Your task to perform on an android device: change notifications settings Image 0: 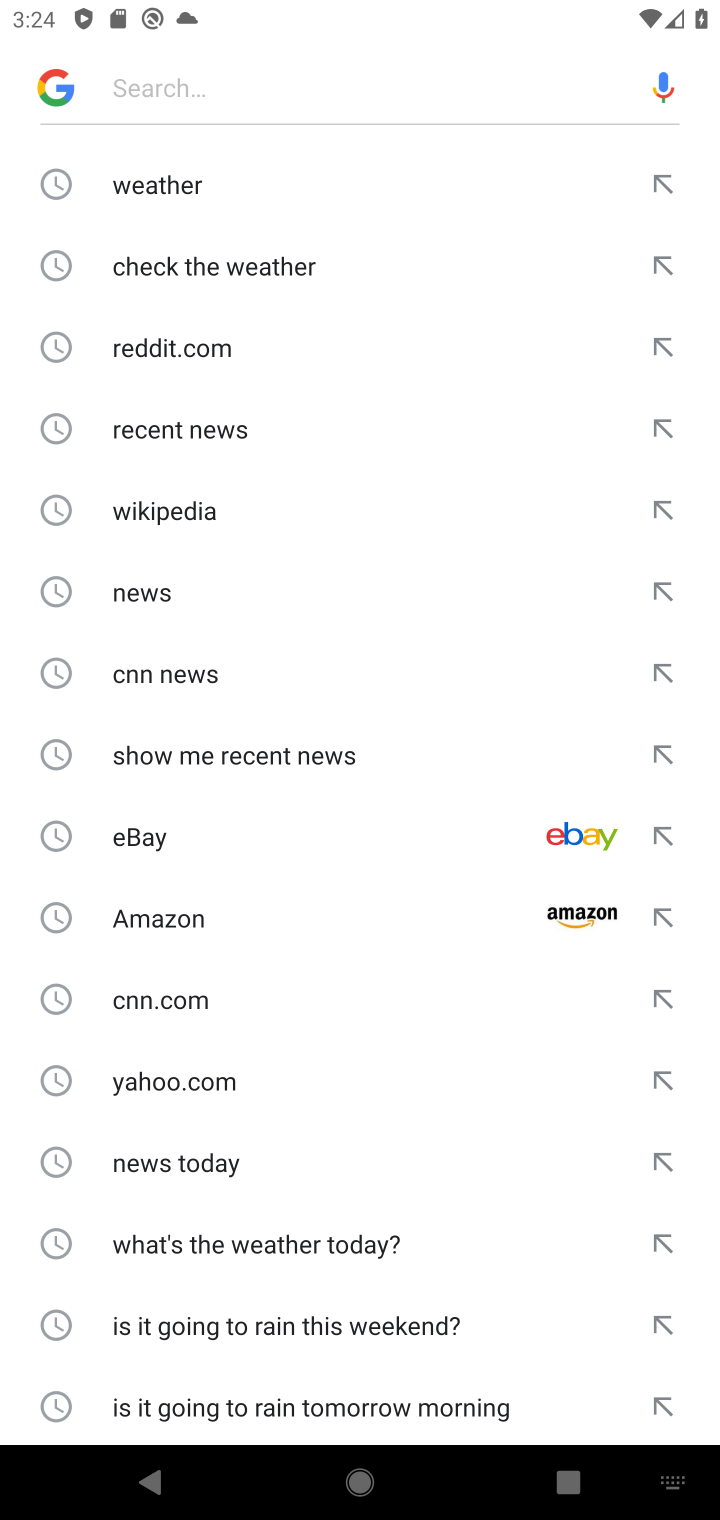
Step 0: press home button
Your task to perform on an android device: change notifications settings Image 1: 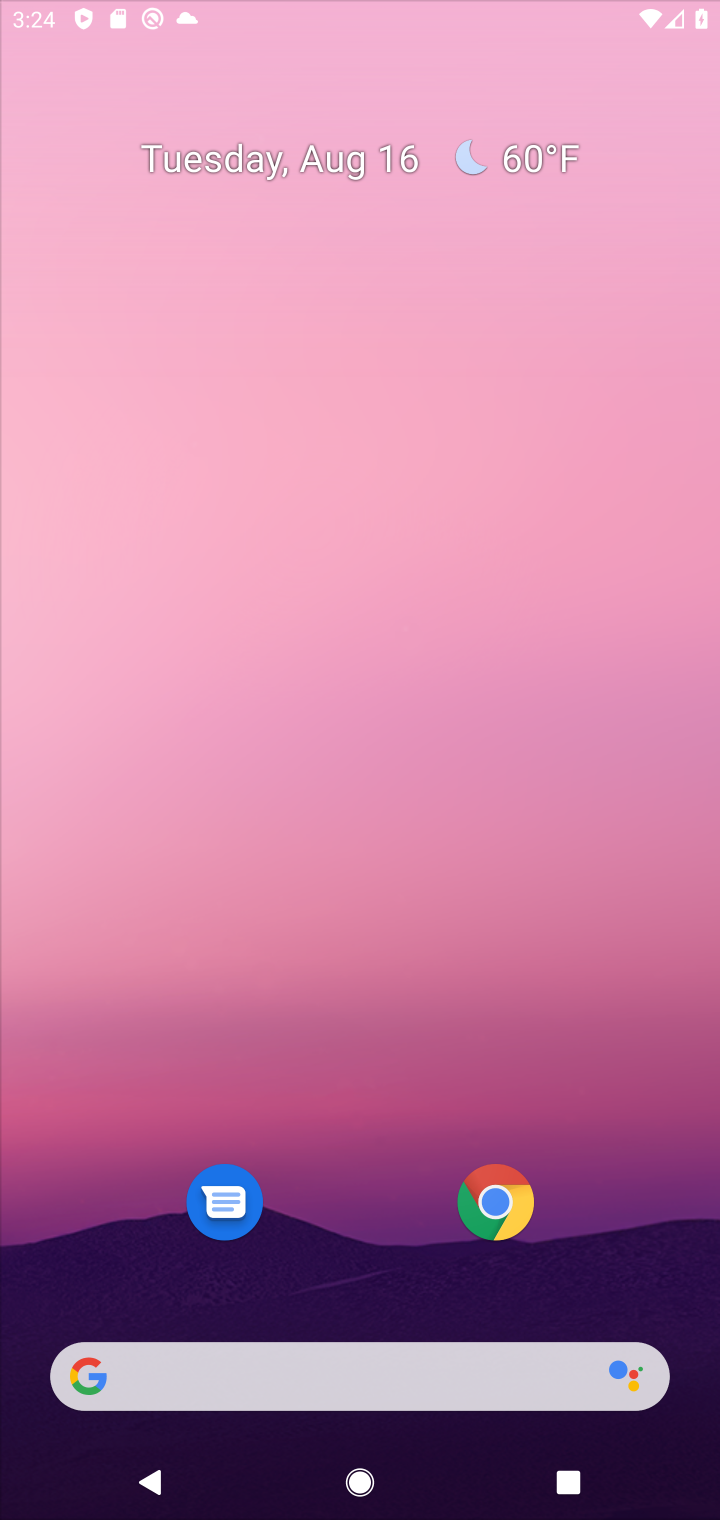
Step 1: press home button
Your task to perform on an android device: change notifications settings Image 2: 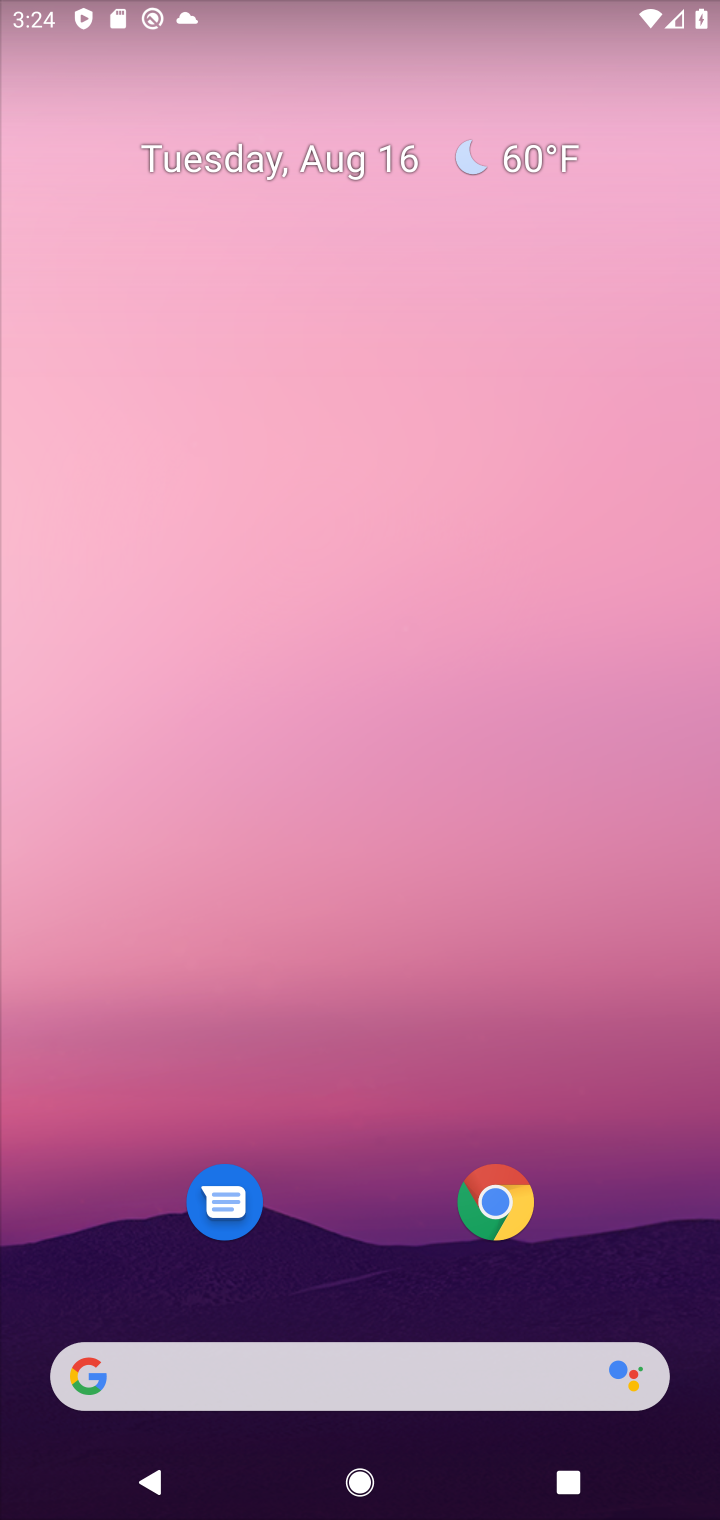
Step 2: drag from (354, 719) to (346, 296)
Your task to perform on an android device: change notifications settings Image 3: 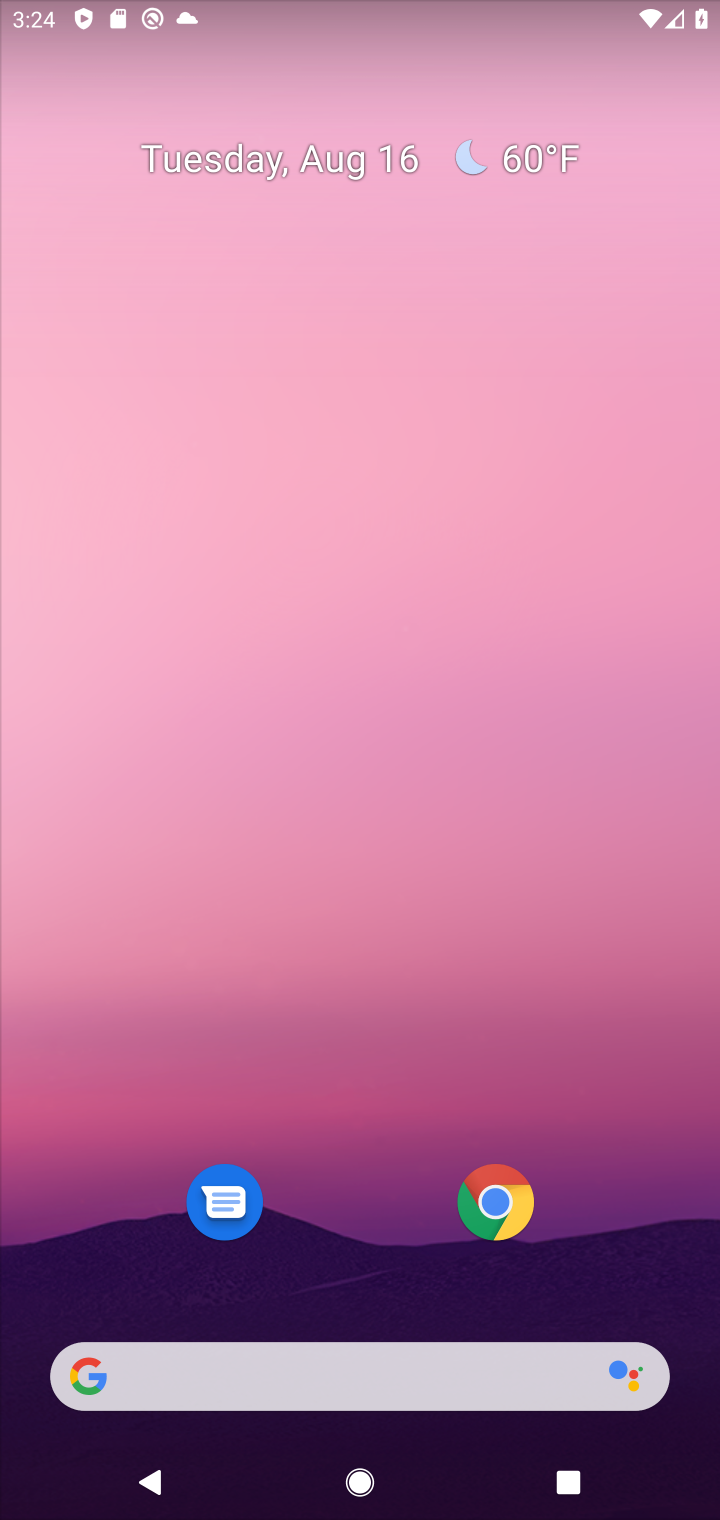
Step 3: drag from (339, 922) to (311, 132)
Your task to perform on an android device: change notifications settings Image 4: 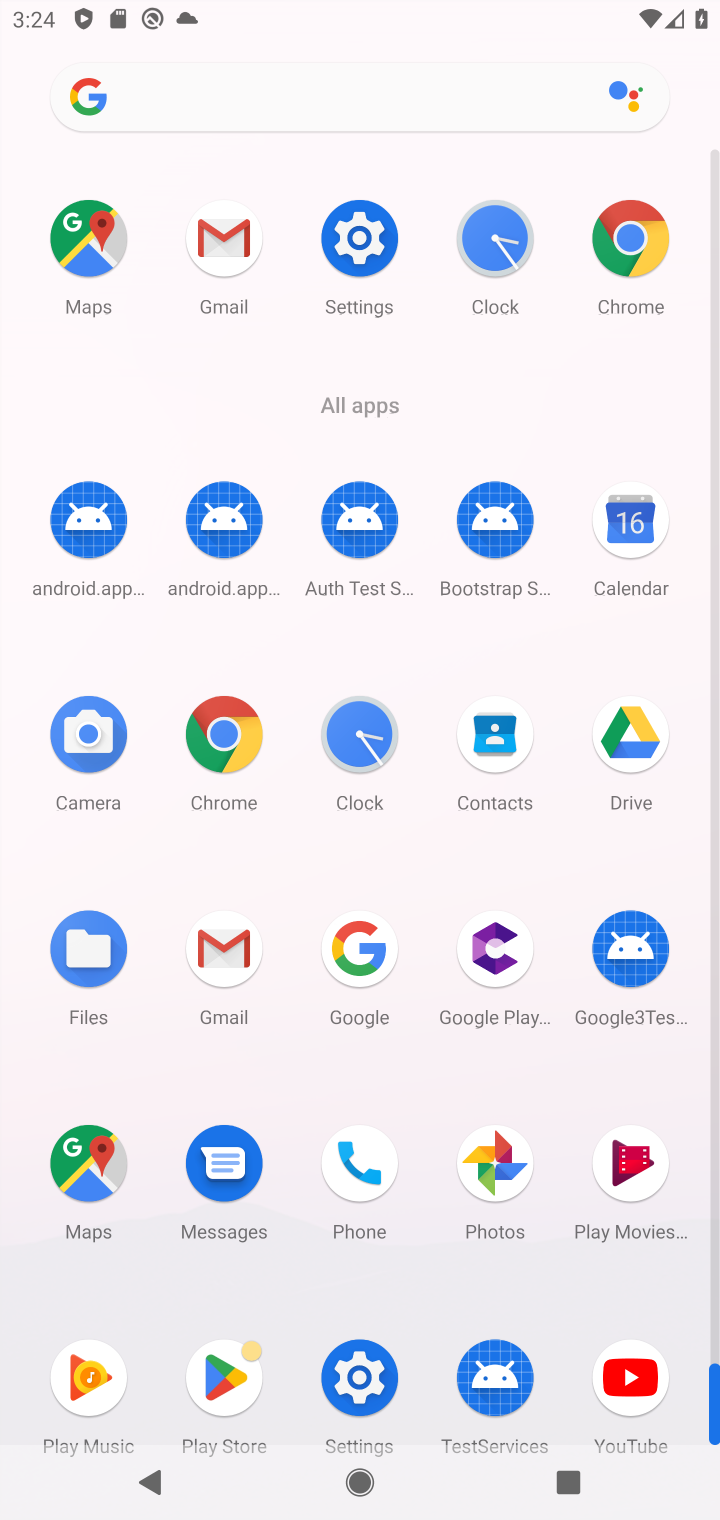
Step 4: click (378, 1384)
Your task to perform on an android device: change notifications settings Image 5: 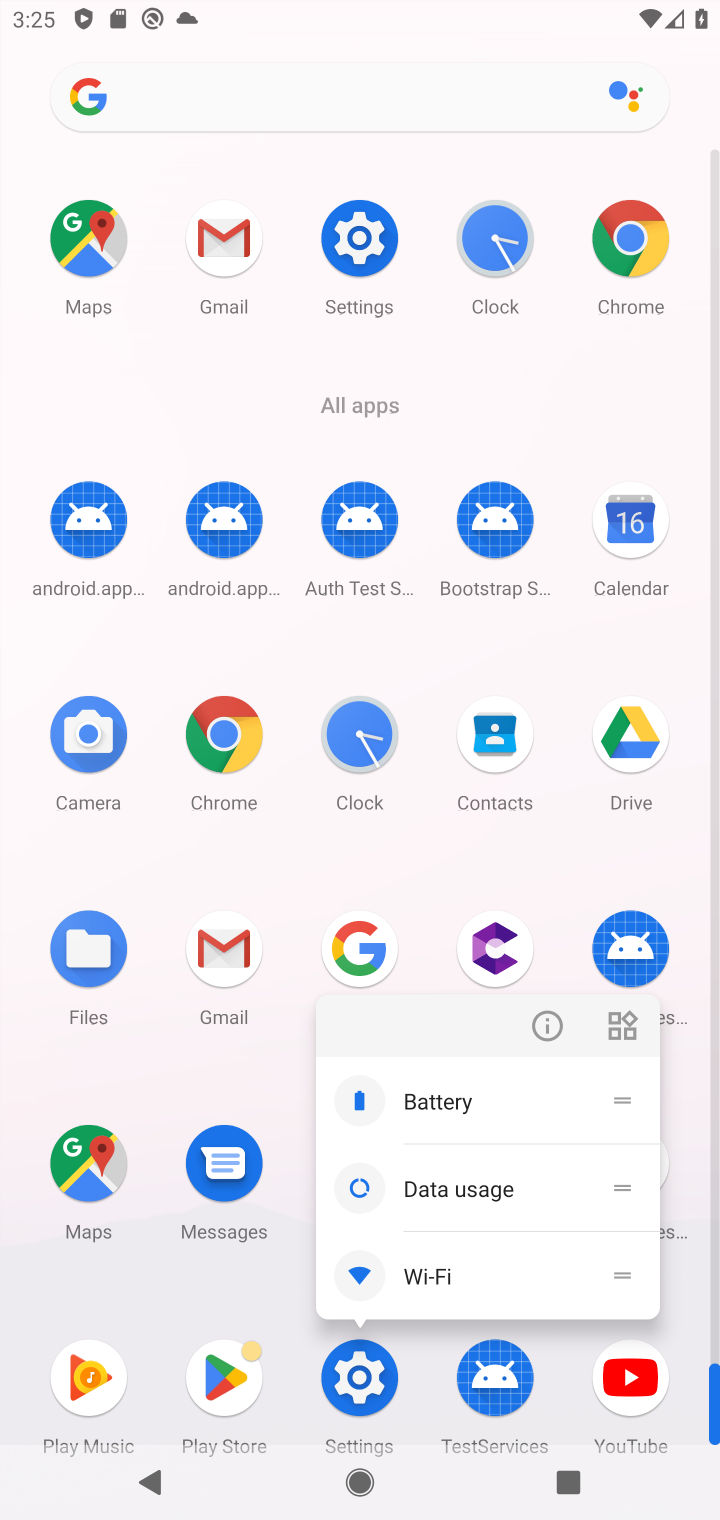
Step 5: click (362, 1377)
Your task to perform on an android device: change notifications settings Image 6: 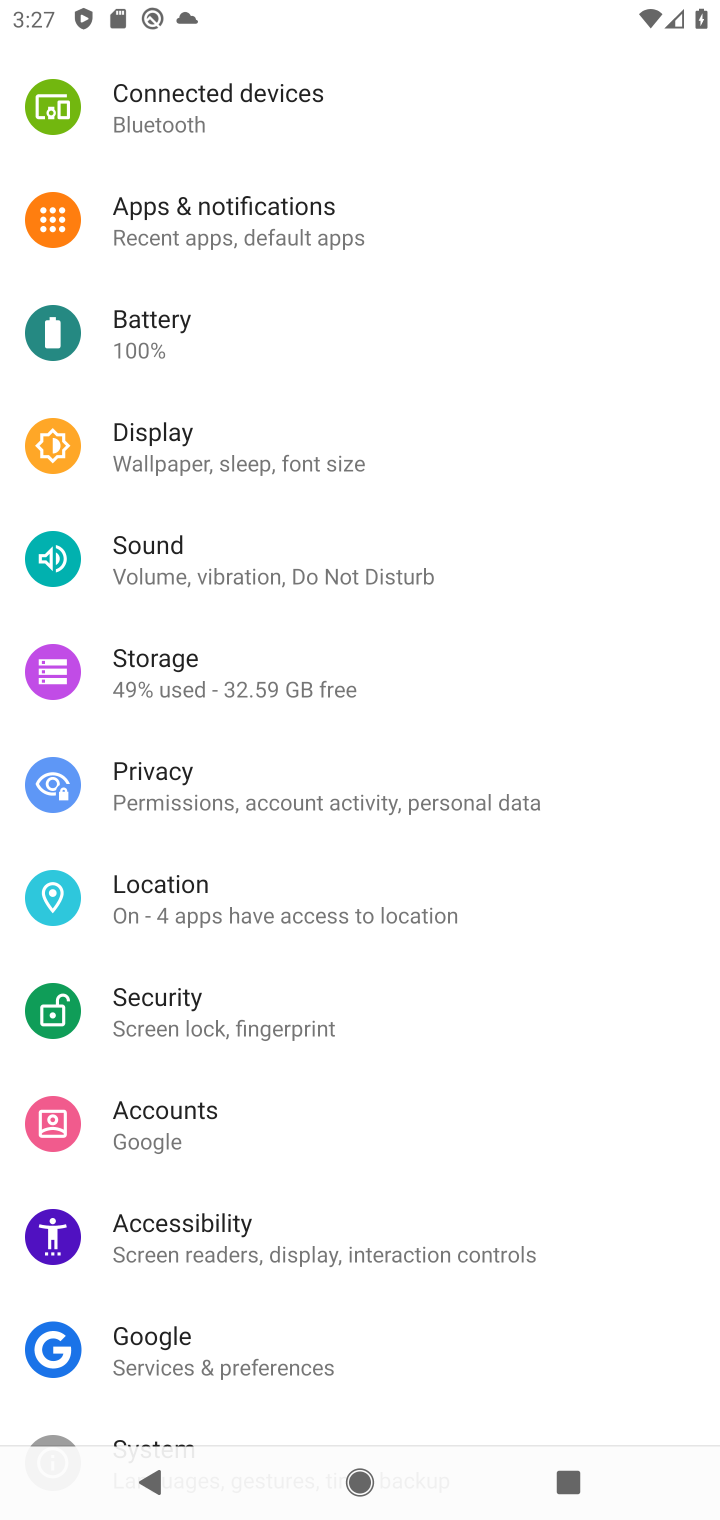
Step 6: click (382, 229)
Your task to perform on an android device: change notifications settings Image 7: 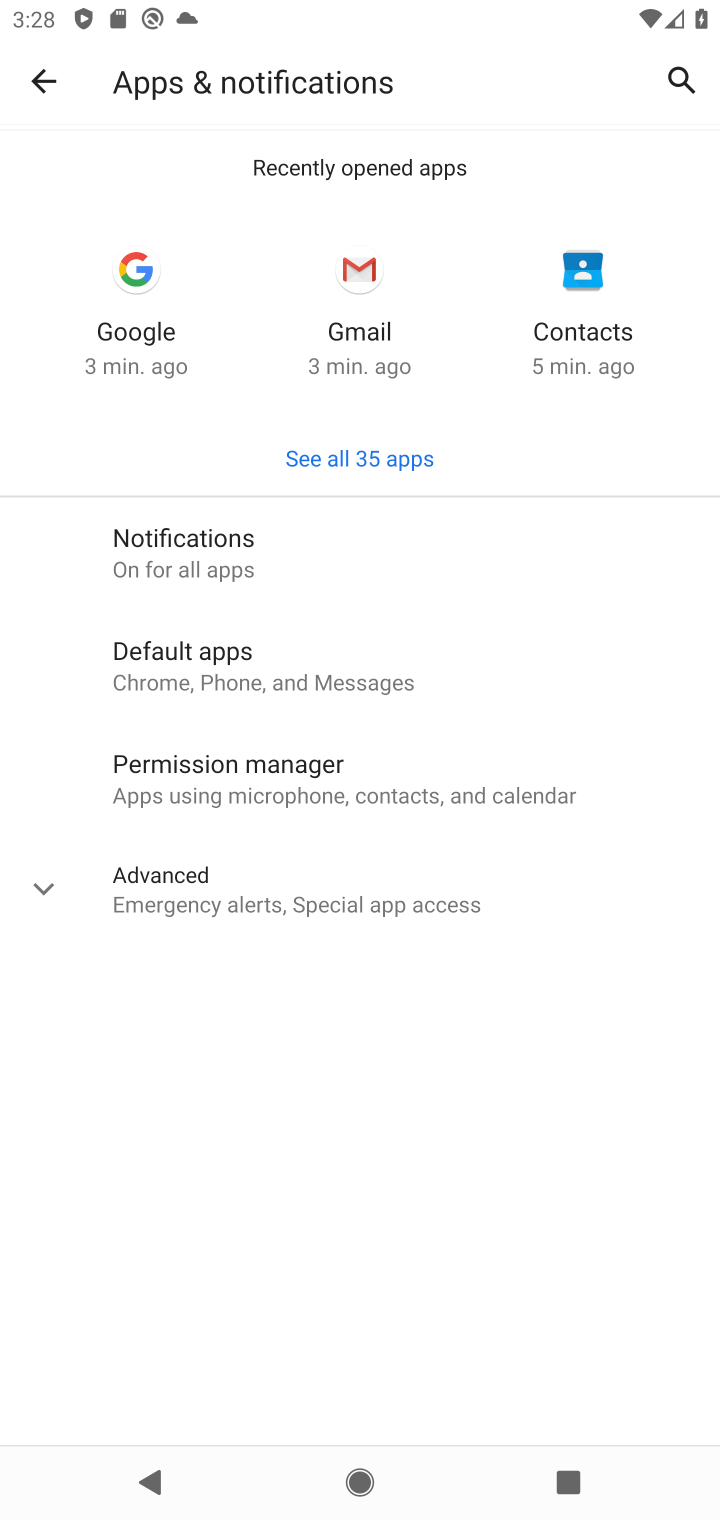
Step 7: click (292, 581)
Your task to perform on an android device: change notifications settings Image 8: 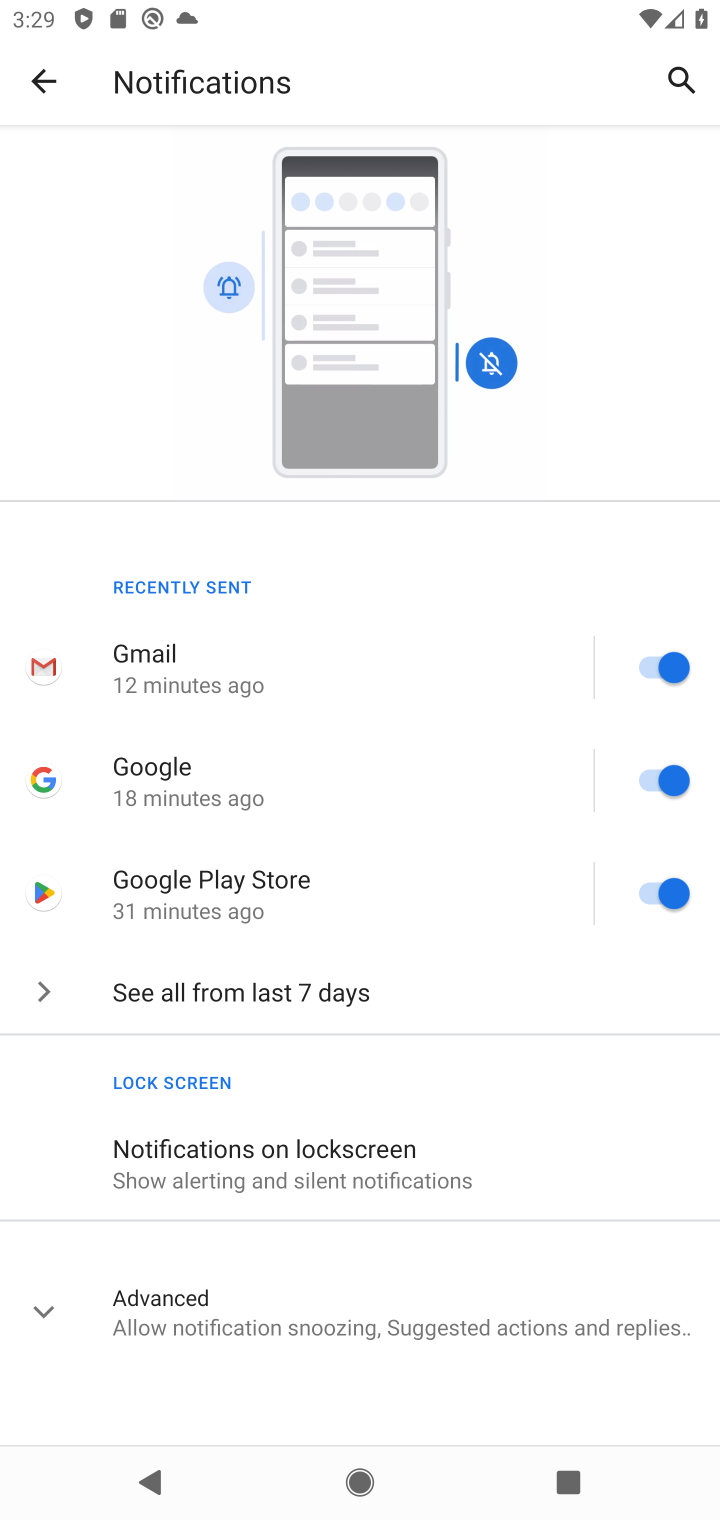
Step 8: drag from (350, 1063) to (421, 422)
Your task to perform on an android device: change notifications settings Image 9: 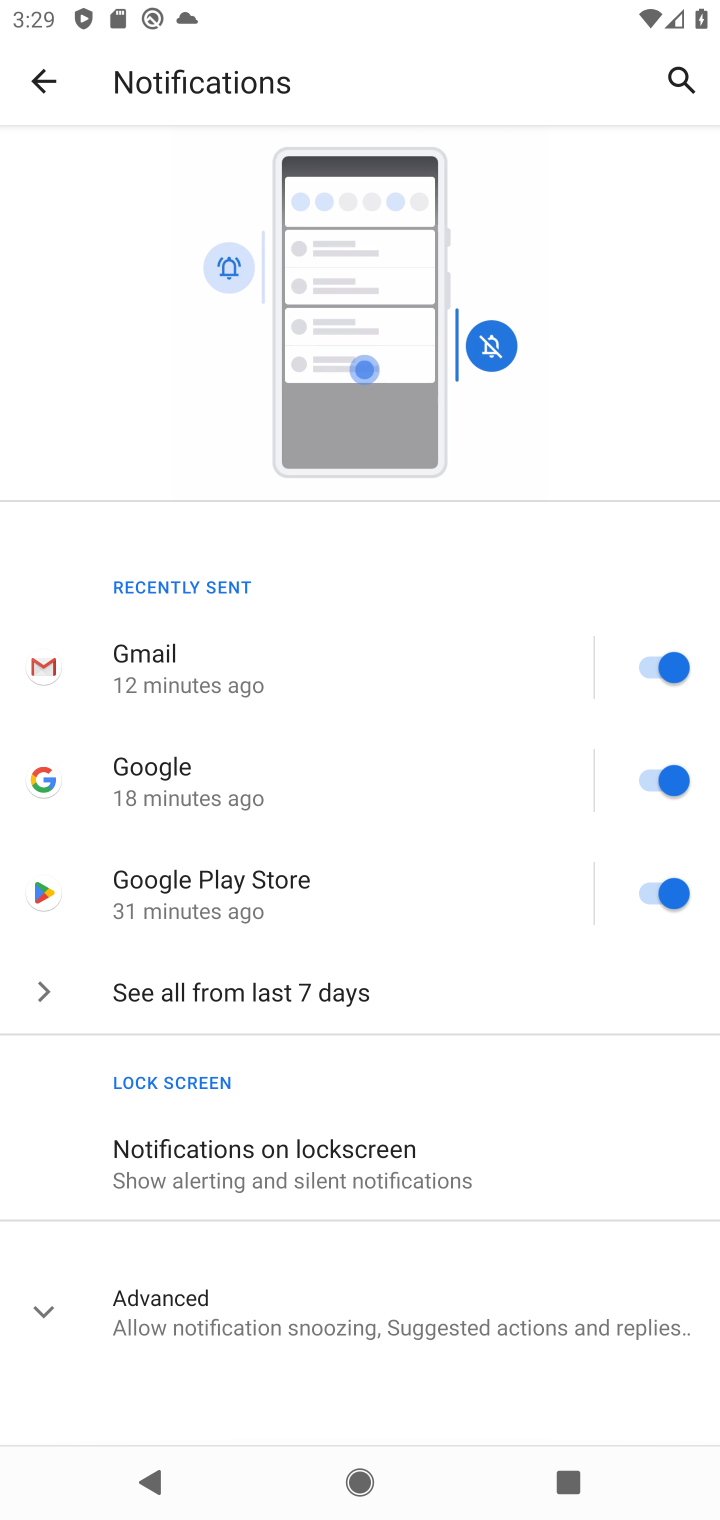
Step 9: click (646, 895)
Your task to perform on an android device: change notifications settings Image 10: 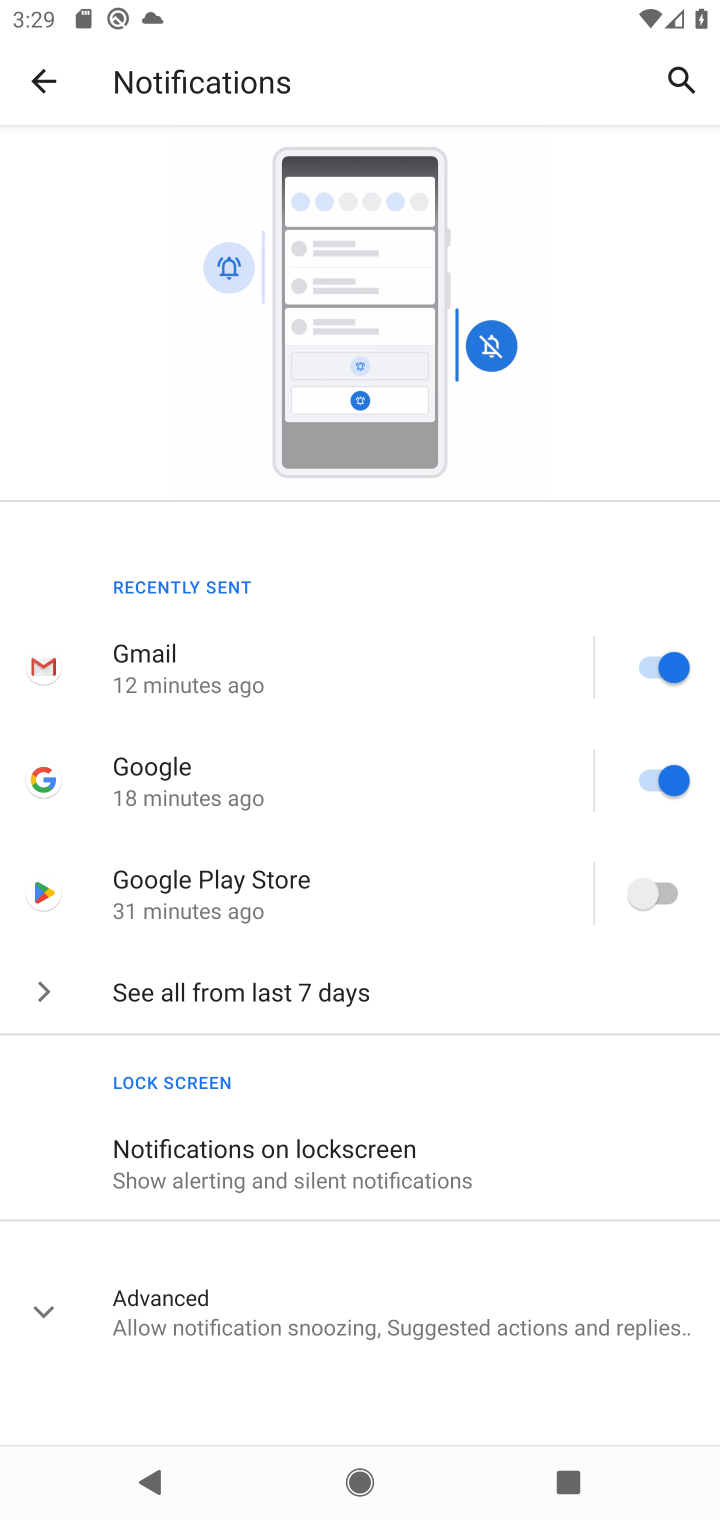
Step 10: task complete